Your task to perform on an android device: Open eBay Image 0: 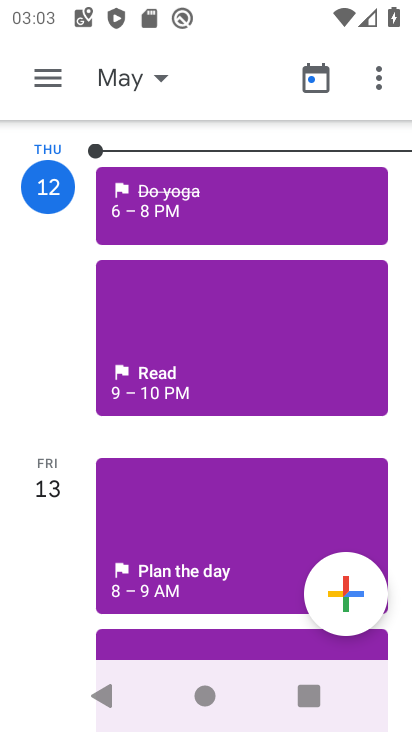
Step 0: press home button
Your task to perform on an android device: Open eBay Image 1: 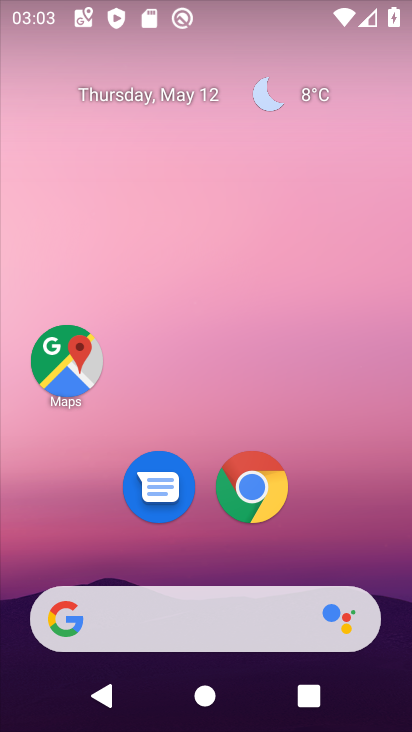
Step 1: click (253, 494)
Your task to perform on an android device: Open eBay Image 2: 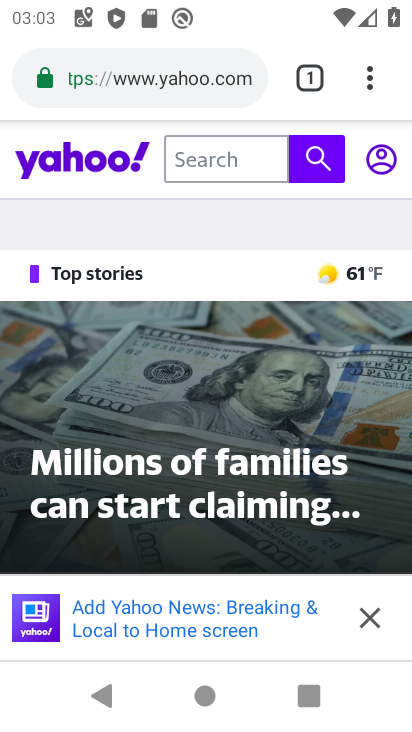
Step 2: click (211, 79)
Your task to perform on an android device: Open eBay Image 3: 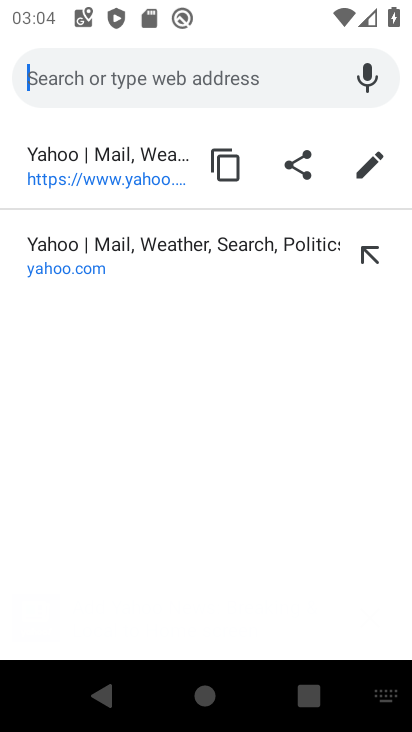
Step 3: type "ebay"
Your task to perform on an android device: Open eBay Image 4: 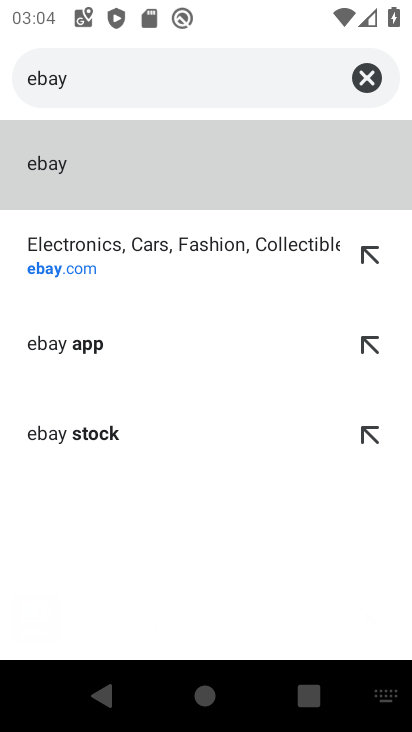
Step 4: click (65, 270)
Your task to perform on an android device: Open eBay Image 5: 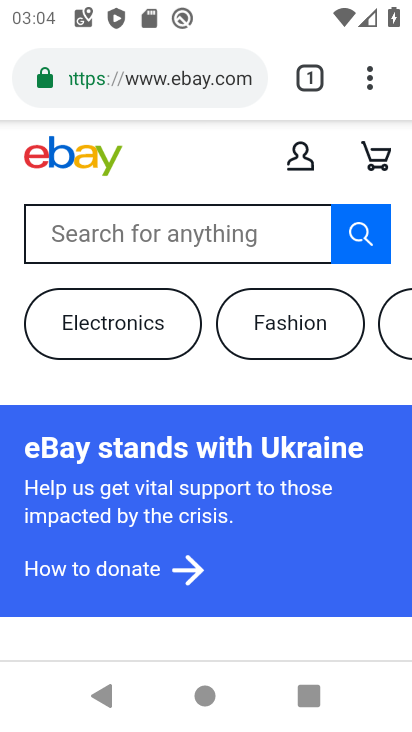
Step 5: task complete